Your task to perform on an android device: toggle notifications settings in the gmail app Image 0: 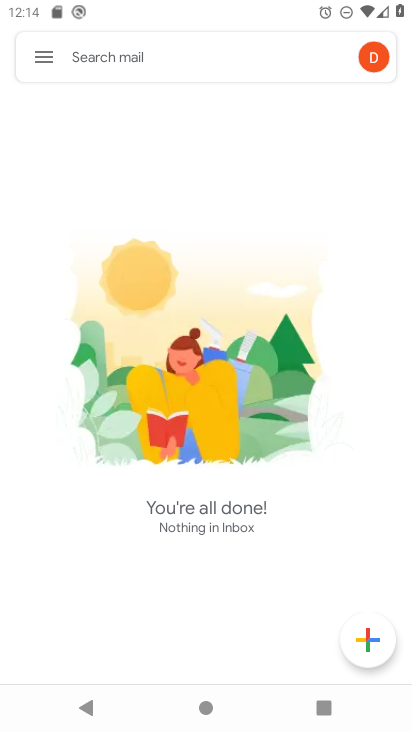
Step 0: click (42, 63)
Your task to perform on an android device: toggle notifications settings in the gmail app Image 1: 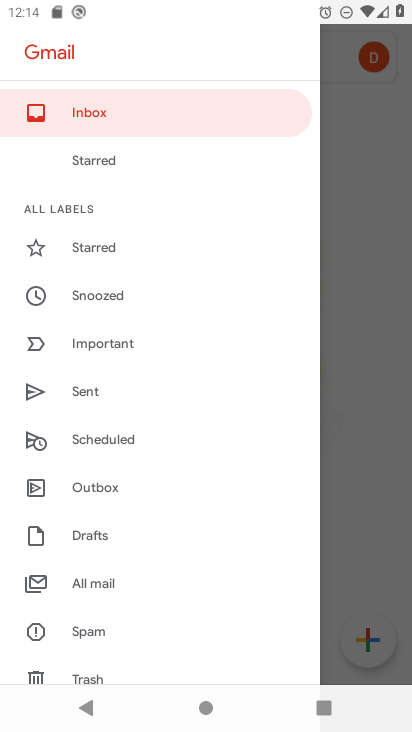
Step 1: drag from (197, 658) to (224, 283)
Your task to perform on an android device: toggle notifications settings in the gmail app Image 2: 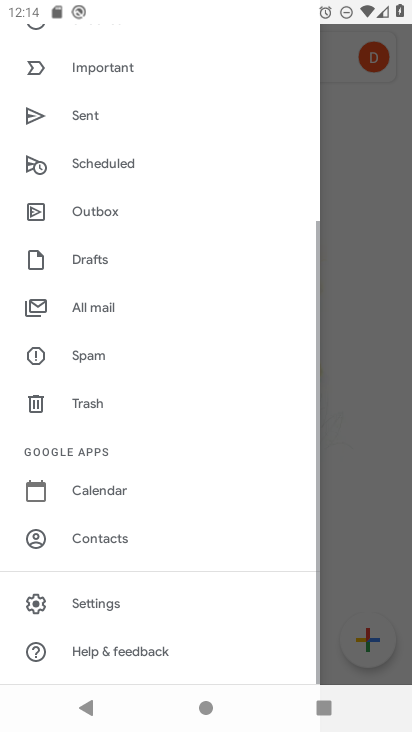
Step 2: click (88, 597)
Your task to perform on an android device: toggle notifications settings in the gmail app Image 3: 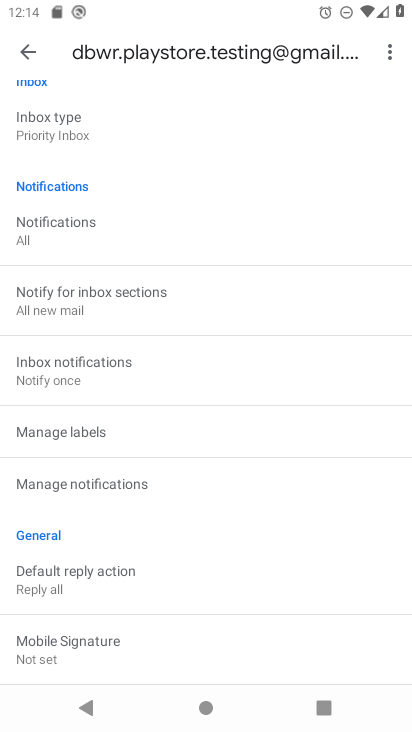
Step 3: click (26, 52)
Your task to perform on an android device: toggle notifications settings in the gmail app Image 4: 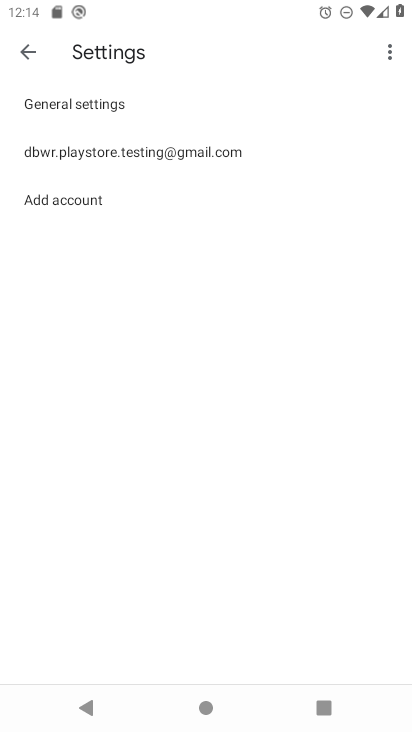
Step 4: click (57, 103)
Your task to perform on an android device: toggle notifications settings in the gmail app Image 5: 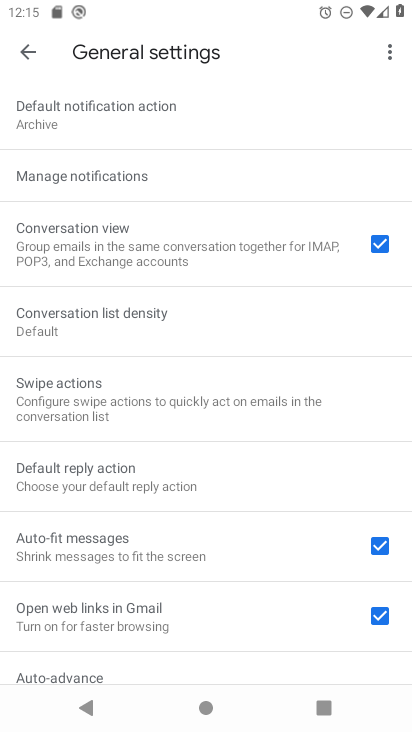
Step 5: click (45, 181)
Your task to perform on an android device: toggle notifications settings in the gmail app Image 6: 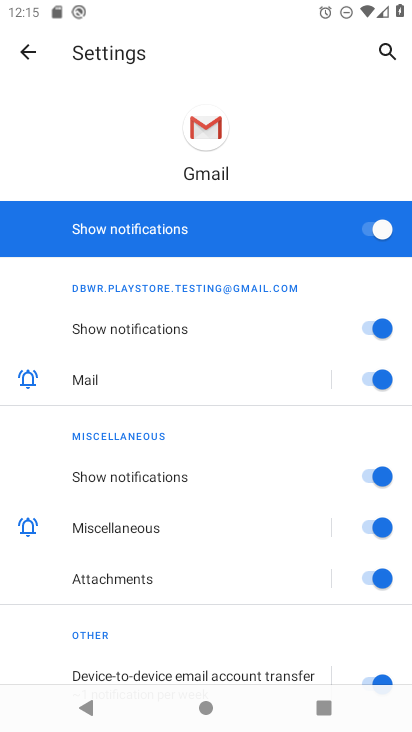
Step 6: click (372, 229)
Your task to perform on an android device: toggle notifications settings in the gmail app Image 7: 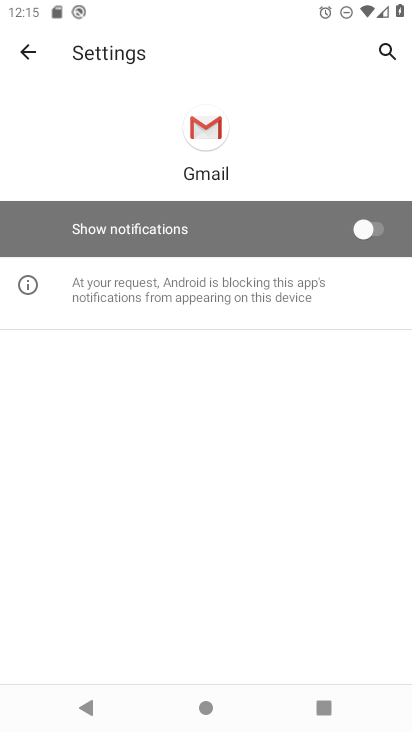
Step 7: task complete